Your task to perform on an android device: move a message to another label in the gmail app Image 0: 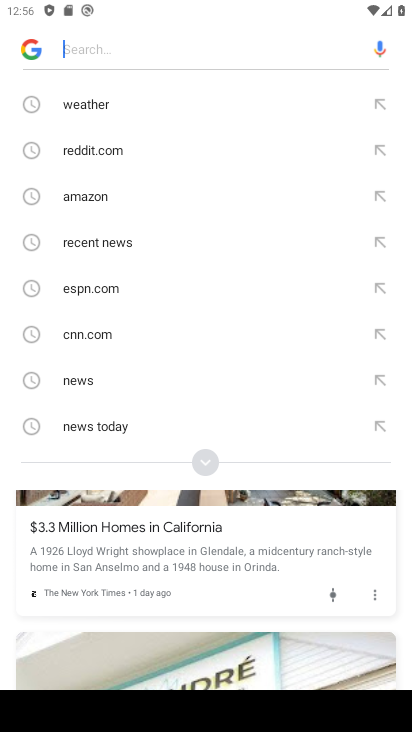
Step 0: press home button
Your task to perform on an android device: move a message to another label in the gmail app Image 1: 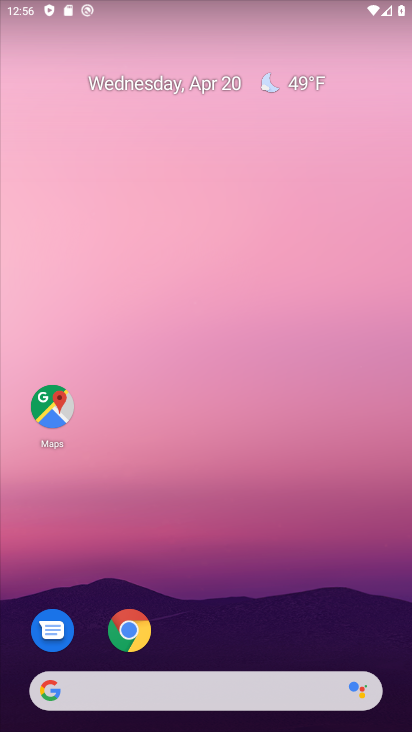
Step 1: drag from (211, 551) to (202, 169)
Your task to perform on an android device: move a message to another label in the gmail app Image 2: 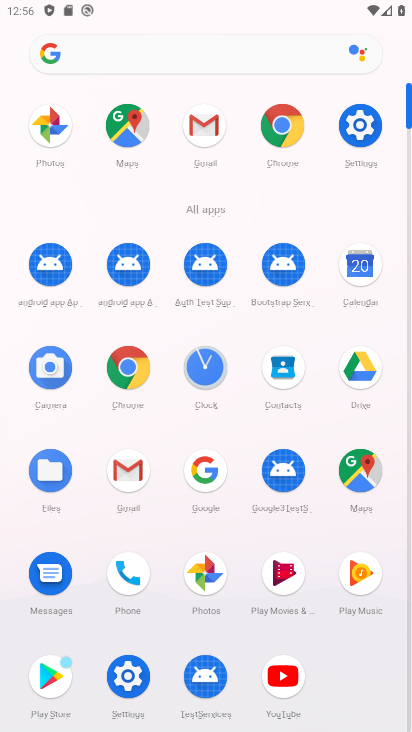
Step 2: click (203, 129)
Your task to perform on an android device: move a message to another label in the gmail app Image 3: 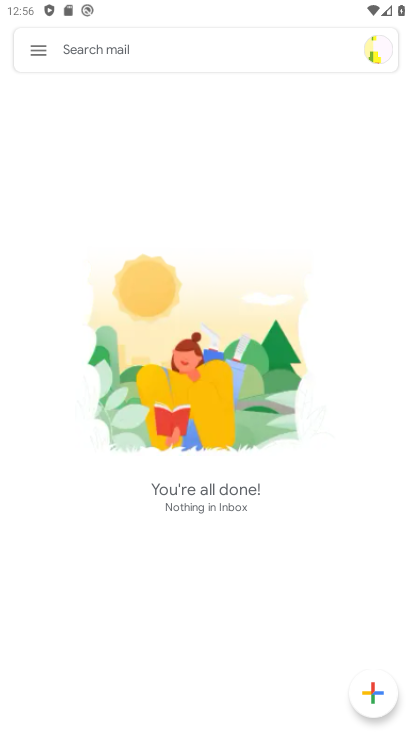
Step 3: click (31, 52)
Your task to perform on an android device: move a message to another label in the gmail app Image 4: 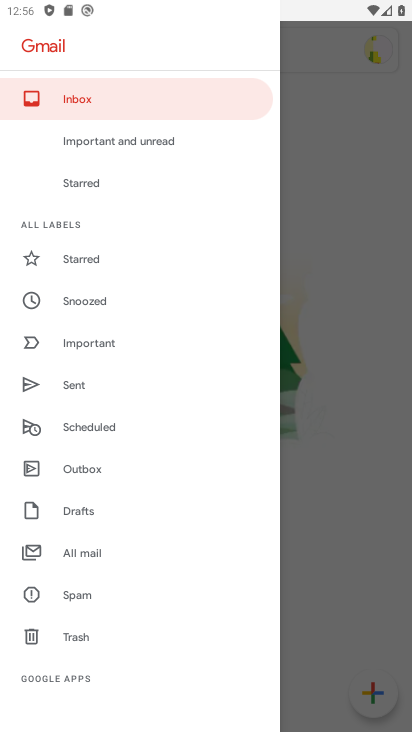
Step 4: click (339, 270)
Your task to perform on an android device: move a message to another label in the gmail app Image 5: 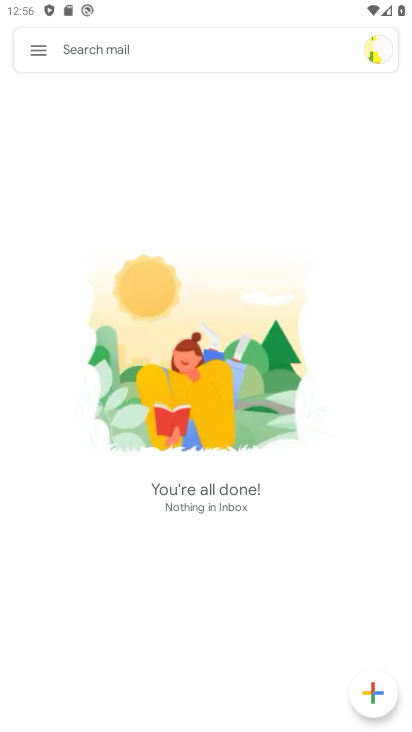
Step 5: task complete